Your task to perform on an android device: Open display settings Image 0: 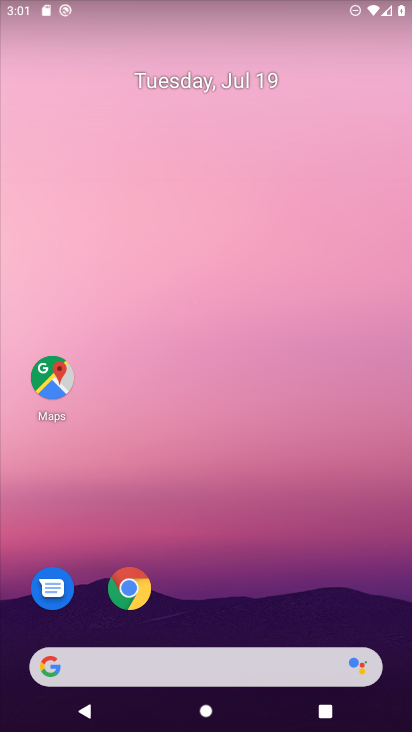
Step 0: drag from (226, 587) to (206, 177)
Your task to perform on an android device: Open display settings Image 1: 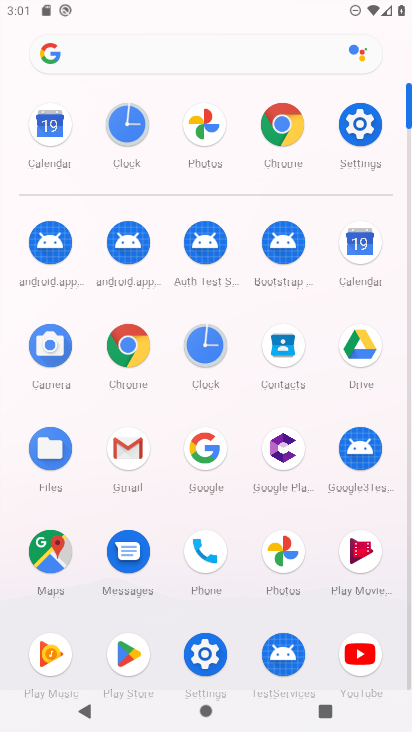
Step 1: click (354, 133)
Your task to perform on an android device: Open display settings Image 2: 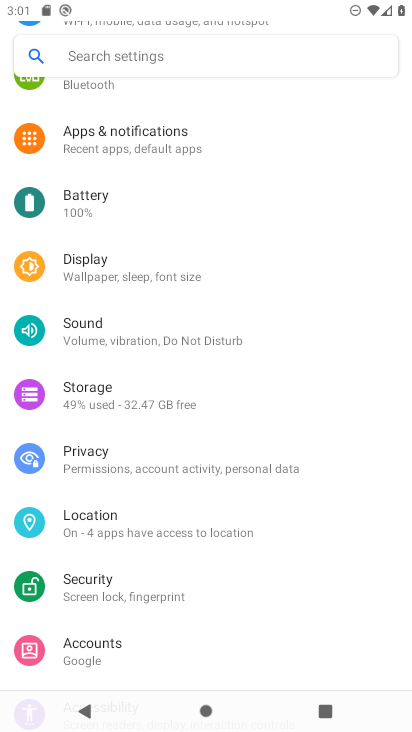
Step 2: click (92, 277)
Your task to perform on an android device: Open display settings Image 3: 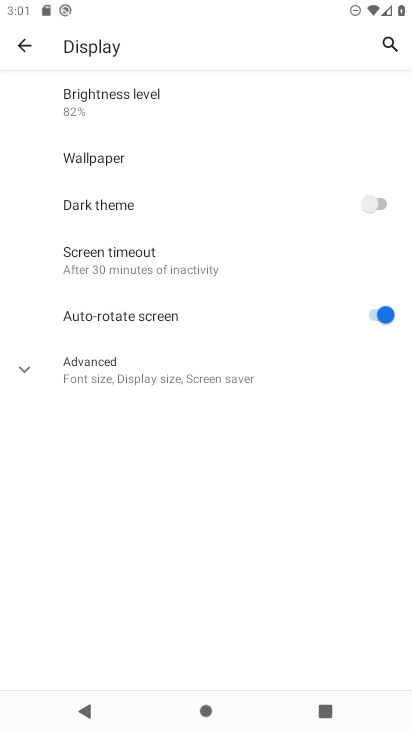
Step 3: task complete